Your task to perform on an android device: open app "ZOOM Cloud Meetings" (install if not already installed), go to login, and select forgot password Image 0: 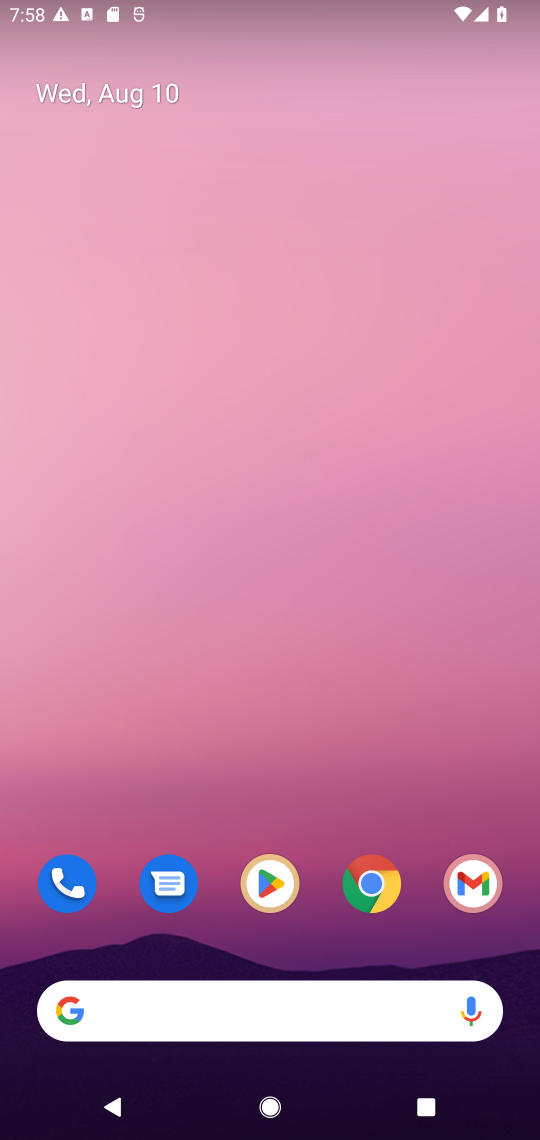
Step 0: drag from (325, 923) to (329, 109)
Your task to perform on an android device: open app "ZOOM Cloud Meetings" (install if not already installed), go to login, and select forgot password Image 1: 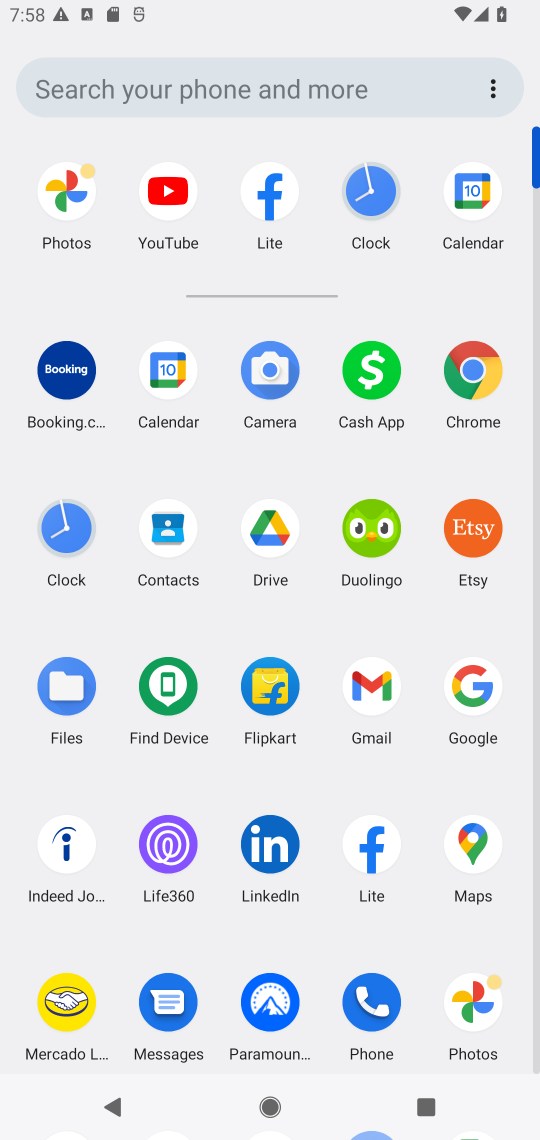
Step 1: drag from (304, 1025) to (304, 449)
Your task to perform on an android device: open app "ZOOM Cloud Meetings" (install if not already installed), go to login, and select forgot password Image 2: 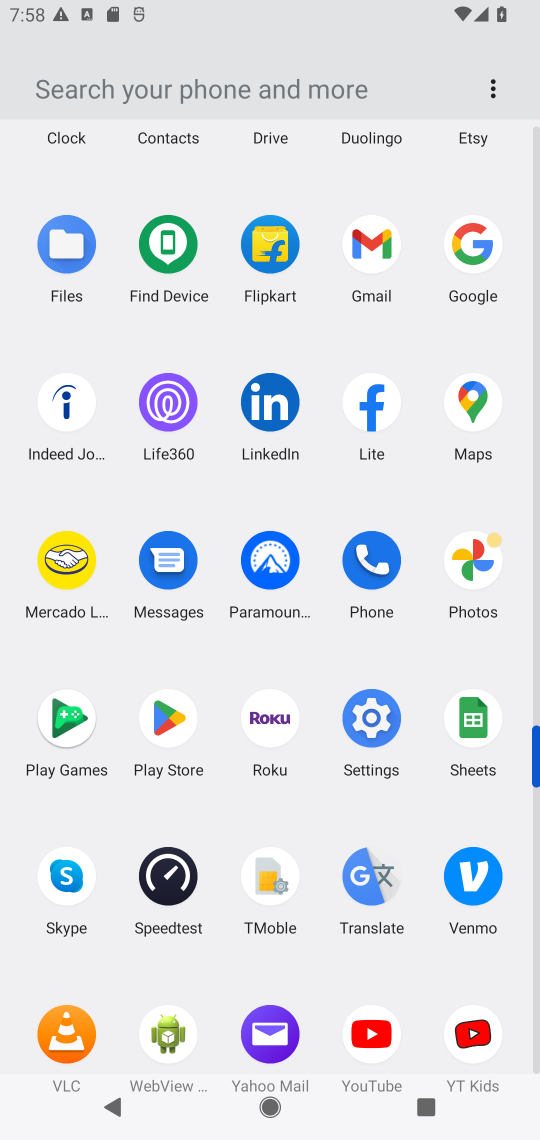
Step 2: click (165, 712)
Your task to perform on an android device: open app "ZOOM Cloud Meetings" (install if not already installed), go to login, and select forgot password Image 3: 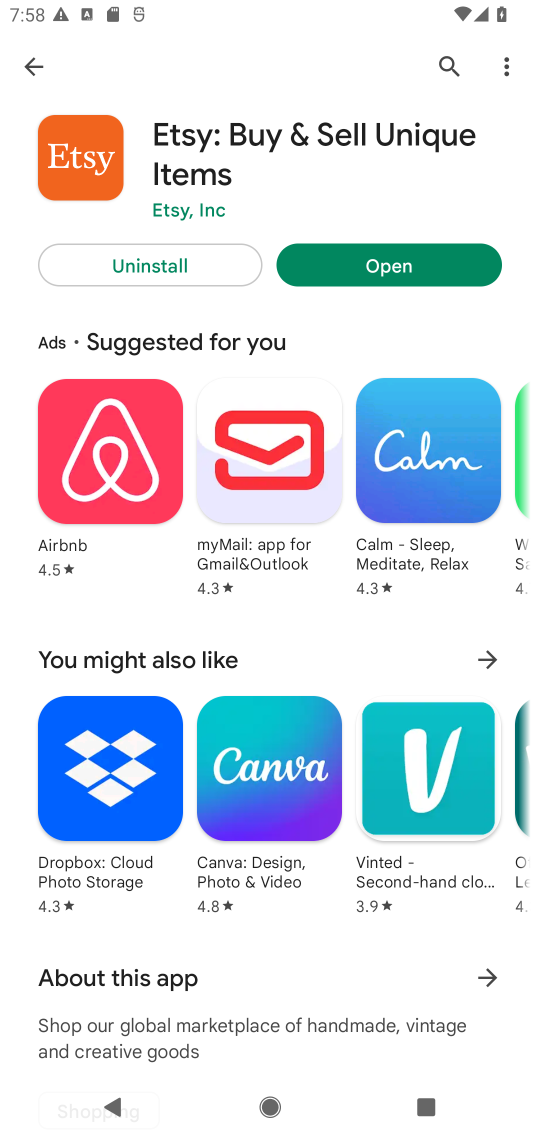
Step 3: click (449, 60)
Your task to perform on an android device: open app "ZOOM Cloud Meetings" (install if not already installed), go to login, and select forgot password Image 4: 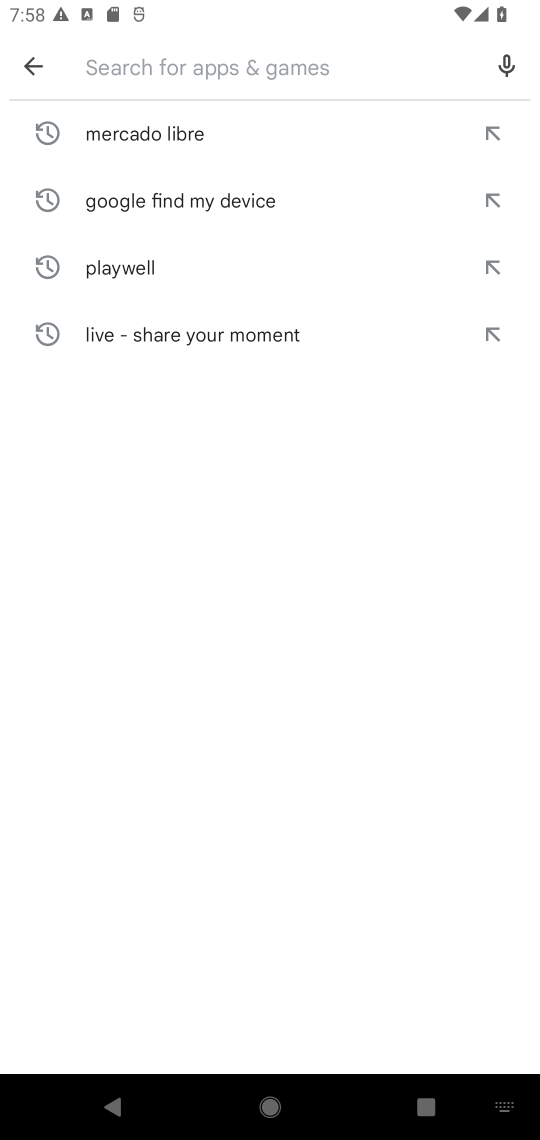
Step 4: type "ZOOM Cloud Meeting"
Your task to perform on an android device: open app "ZOOM Cloud Meetings" (install if not already installed), go to login, and select forgot password Image 5: 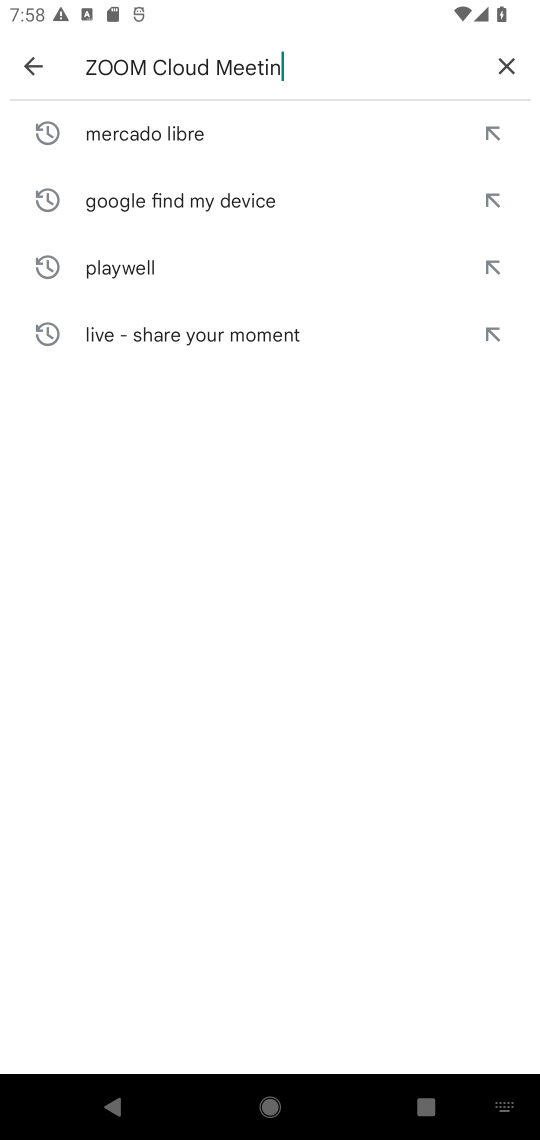
Step 5: type ""
Your task to perform on an android device: open app "ZOOM Cloud Meetings" (install if not already installed), go to login, and select forgot password Image 6: 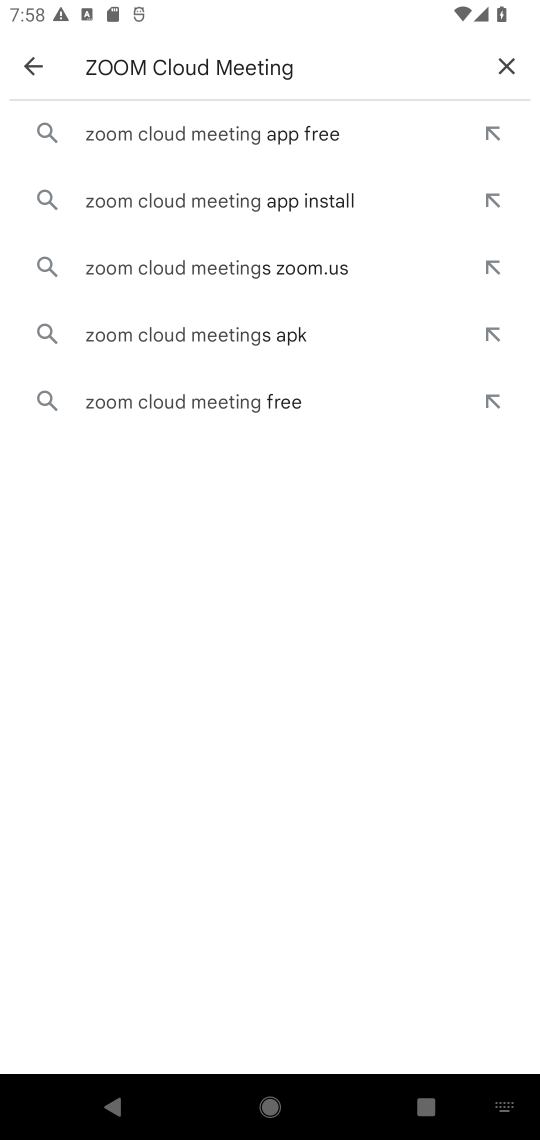
Step 6: click (279, 130)
Your task to perform on an android device: open app "ZOOM Cloud Meetings" (install if not already installed), go to login, and select forgot password Image 7: 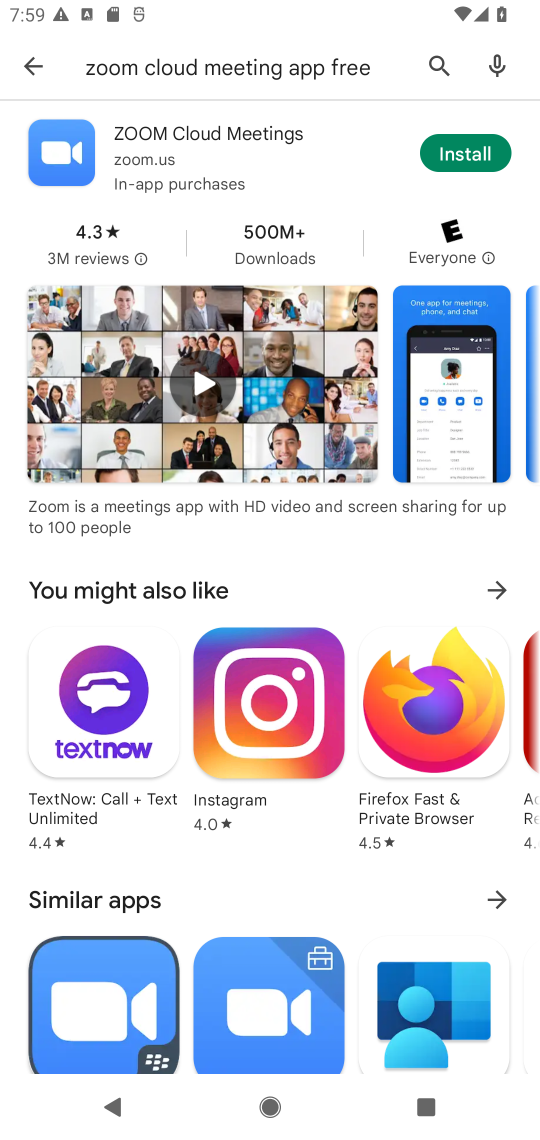
Step 7: click (477, 152)
Your task to perform on an android device: open app "ZOOM Cloud Meetings" (install if not already installed), go to login, and select forgot password Image 8: 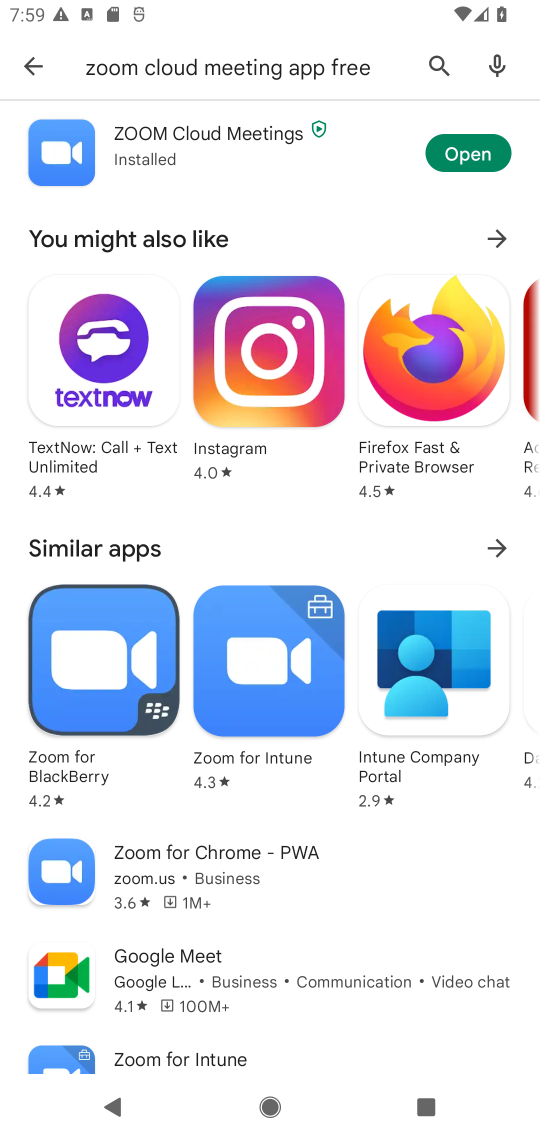
Step 8: click (474, 148)
Your task to perform on an android device: open app "ZOOM Cloud Meetings" (install if not already installed), go to login, and select forgot password Image 9: 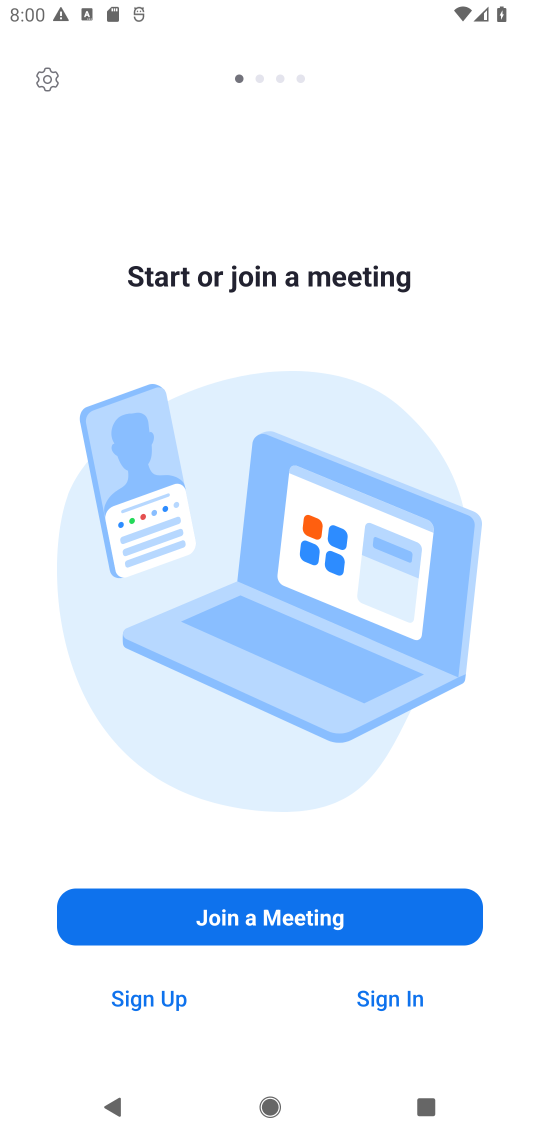
Step 9: click (392, 997)
Your task to perform on an android device: open app "ZOOM Cloud Meetings" (install if not already installed), go to login, and select forgot password Image 10: 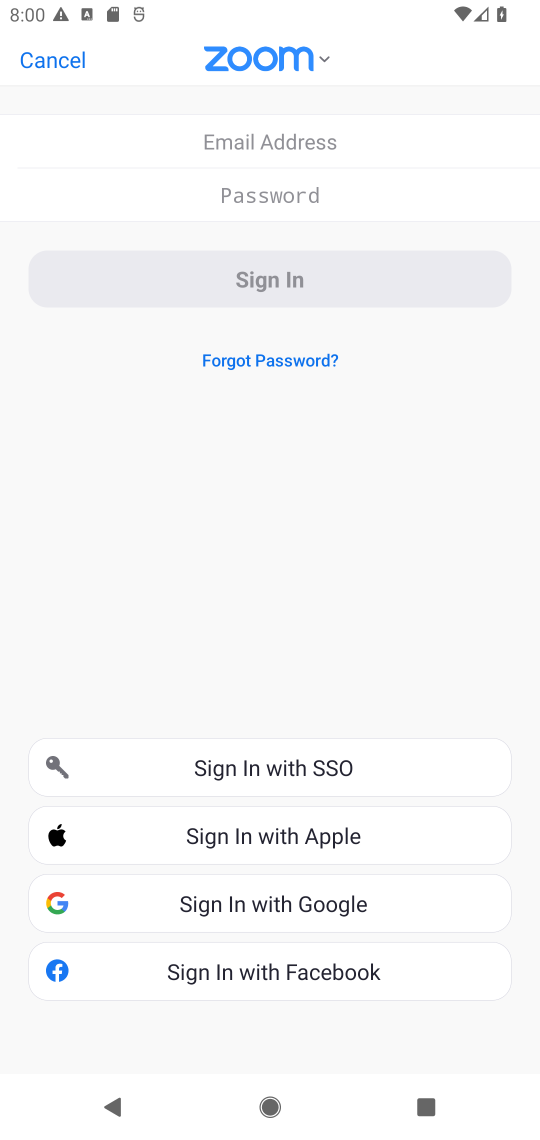
Step 10: click (275, 357)
Your task to perform on an android device: open app "ZOOM Cloud Meetings" (install if not already installed), go to login, and select forgot password Image 11: 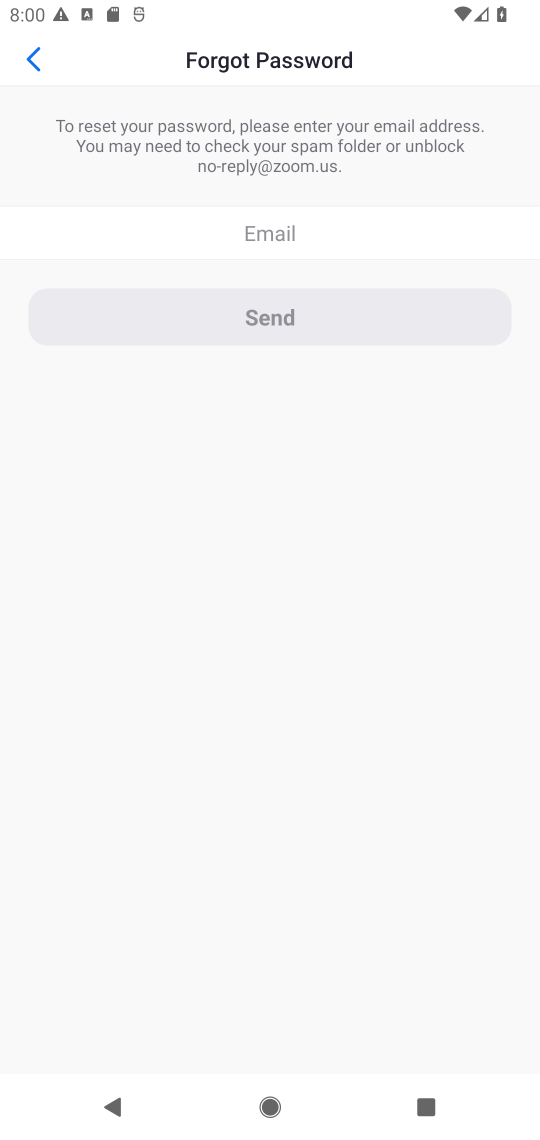
Step 11: task complete